Your task to perform on an android device: move an email to a new category in the gmail app Image 0: 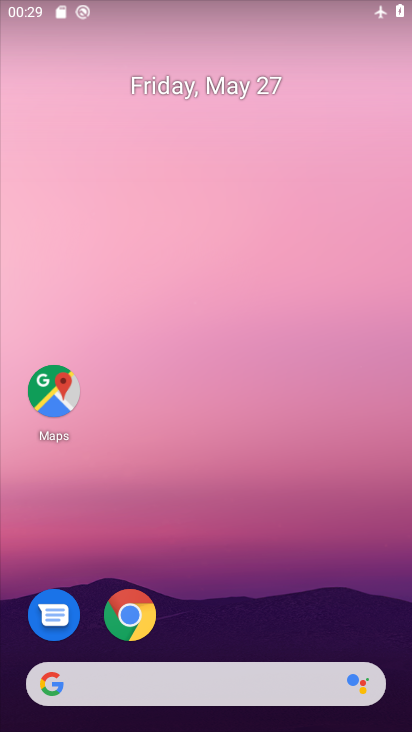
Step 0: drag from (361, 630) to (361, 285)
Your task to perform on an android device: move an email to a new category in the gmail app Image 1: 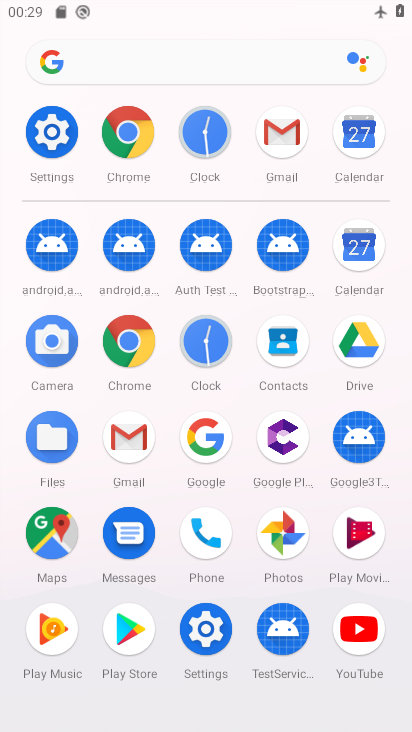
Step 1: click (123, 450)
Your task to perform on an android device: move an email to a new category in the gmail app Image 2: 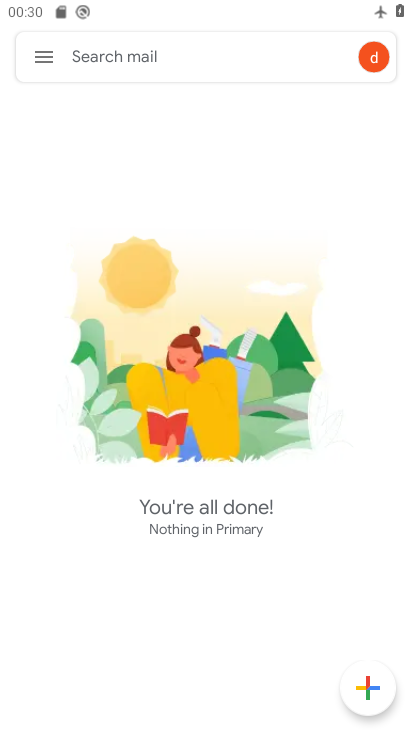
Step 2: click (31, 54)
Your task to perform on an android device: move an email to a new category in the gmail app Image 3: 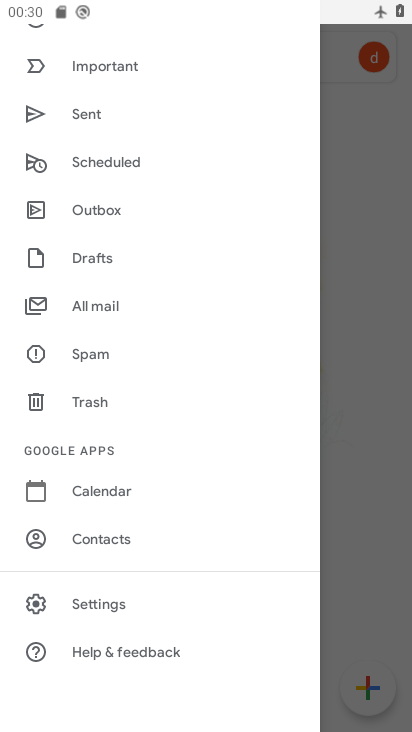
Step 3: drag from (241, 324) to (237, 386)
Your task to perform on an android device: move an email to a new category in the gmail app Image 4: 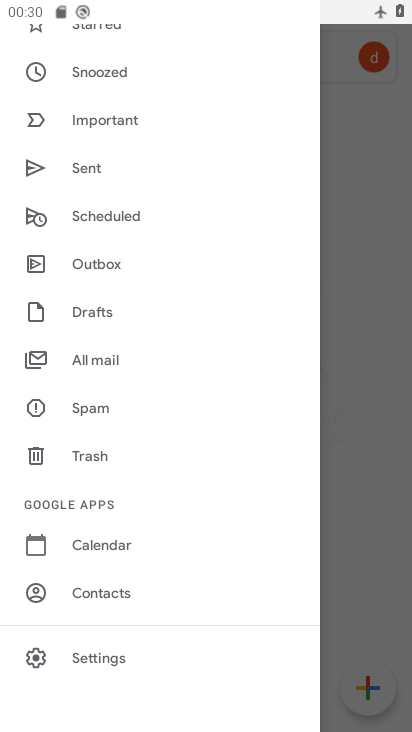
Step 4: drag from (244, 205) to (243, 268)
Your task to perform on an android device: move an email to a new category in the gmail app Image 5: 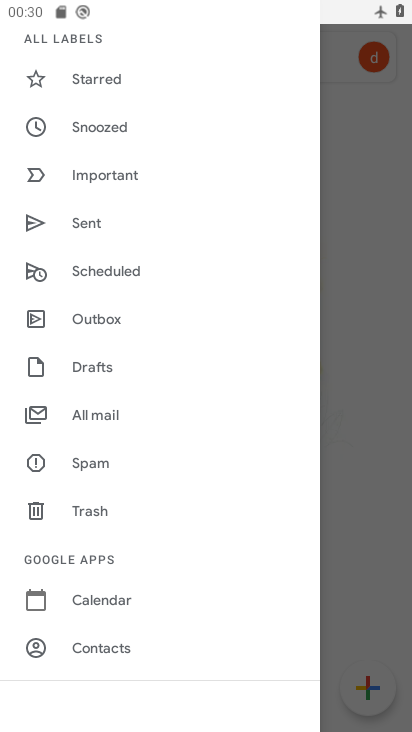
Step 5: drag from (242, 150) to (237, 229)
Your task to perform on an android device: move an email to a new category in the gmail app Image 6: 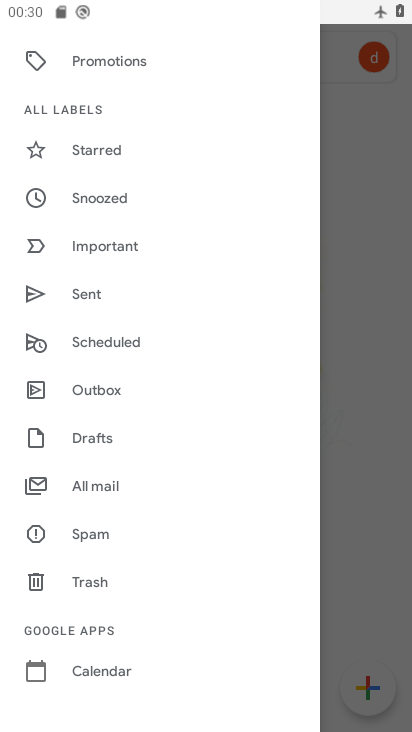
Step 6: drag from (238, 119) to (238, 239)
Your task to perform on an android device: move an email to a new category in the gmail app Image 7: 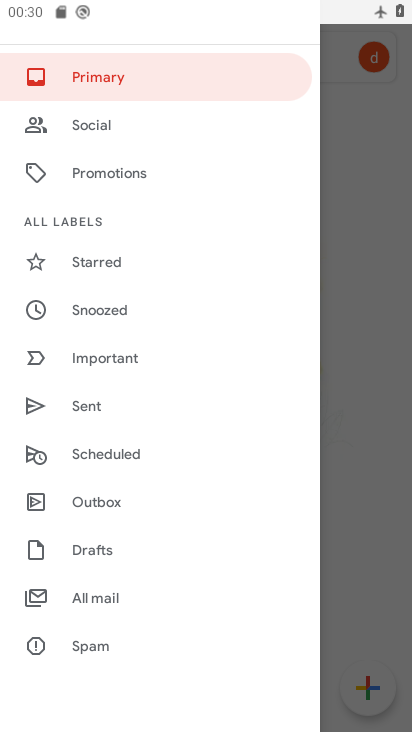
Step 7: drag from (239, 152) to (239, 252)
Your task to perform on an android device: move an email to a new category in the gmail app Image 8: 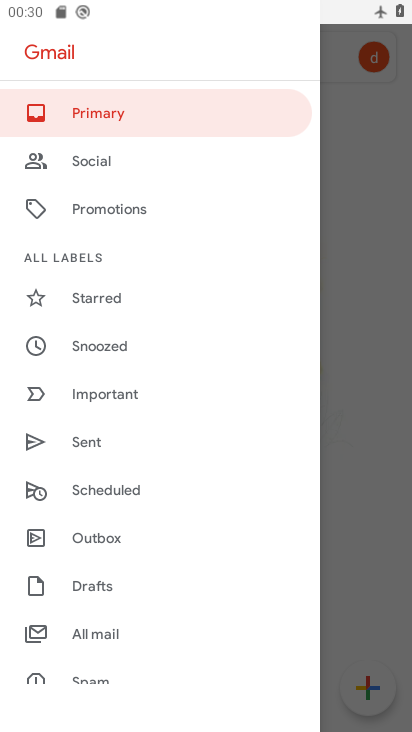
Step 8: click (123, 105)
Your task to perform on an android device: move an email to a new category in the gmail app Image 9: 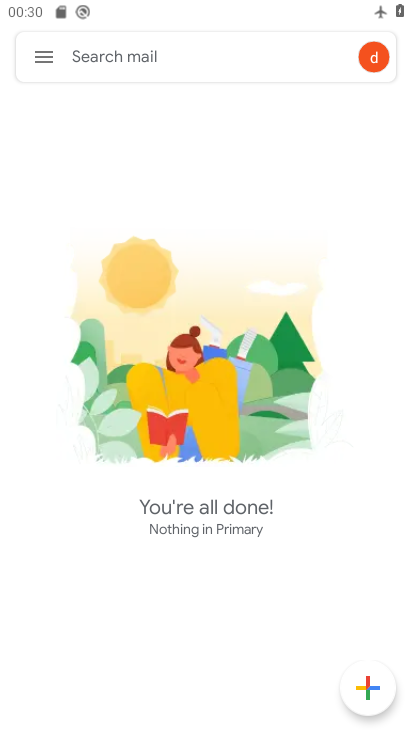
Step 9: task complete